Your task to perform on an android device: toggle pop-ups in chrome Image 0: 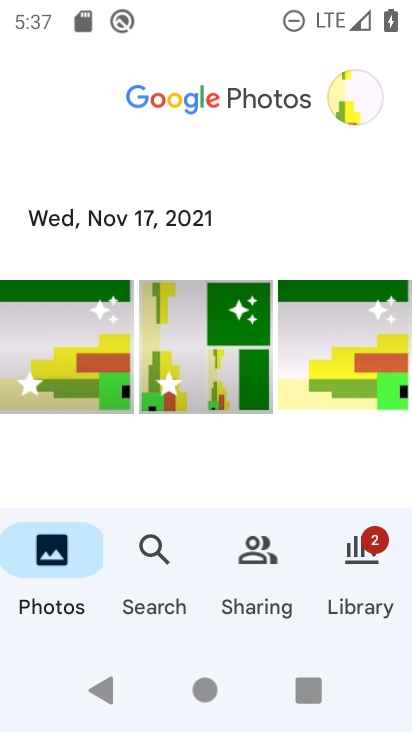
Step 0: press home button
Your task to perform on an android device: toggle pop-ups in chrome Image 1: 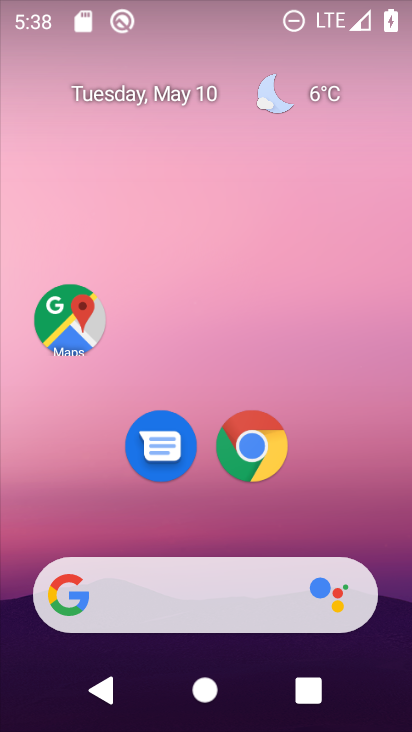
Step 1: click (247, 467)
Your task to perform on an android device: toggle pop-ups in chrome Image 2: 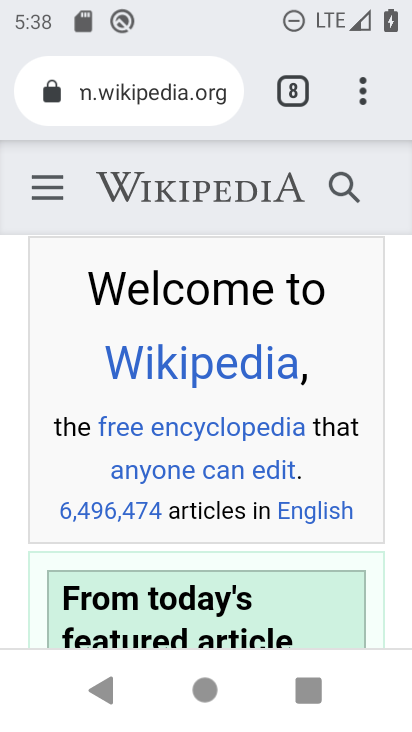
Step 2: click (361, 89)
Your task to perform on an android device: toggle pop-ups in chrome Image 3: 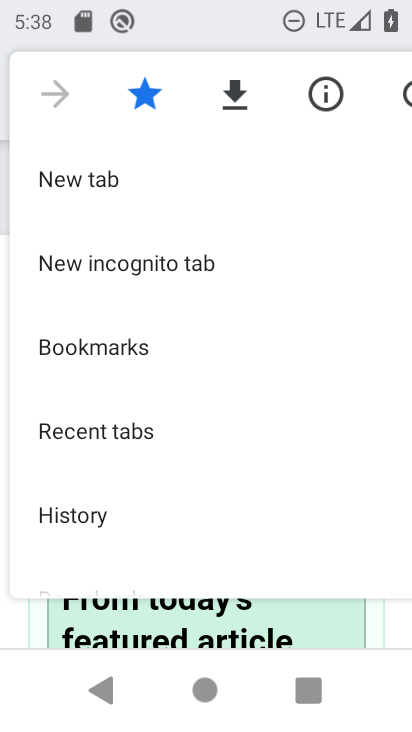
Step 3: drag from (206, 506) to (197, 145)
Your task to perform on an android device: toggle pop-ups in chrome Image 4: 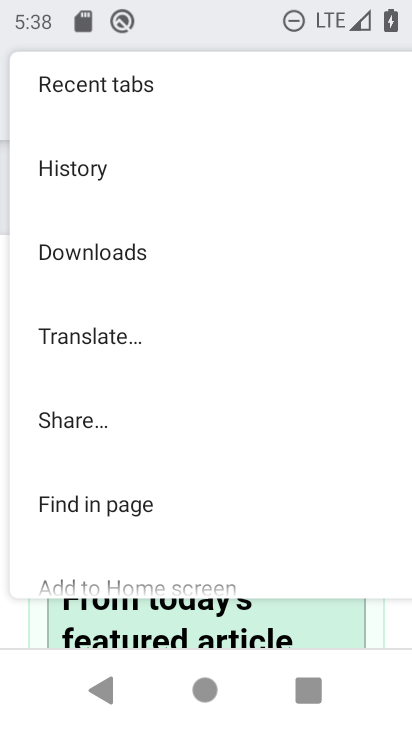
Step 4: drag from (252, 511) to (216, 115)
Your task to perform on an android device: toggle pop-ups in chrome Image 5: 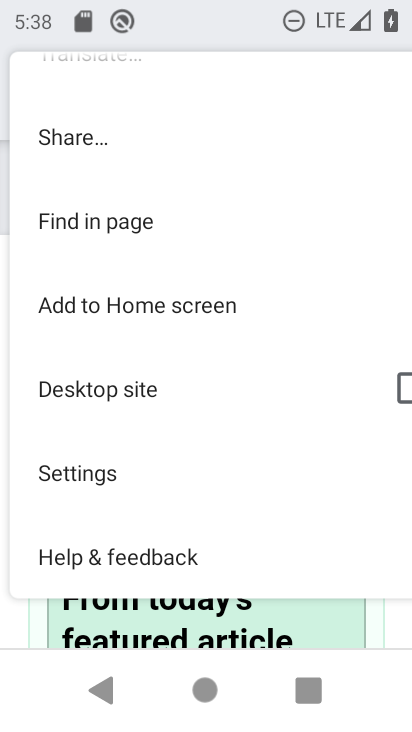
Step 5: click (164, 484)
Your task to perform on an android device: toggle pop-ups in chrome Image 6: 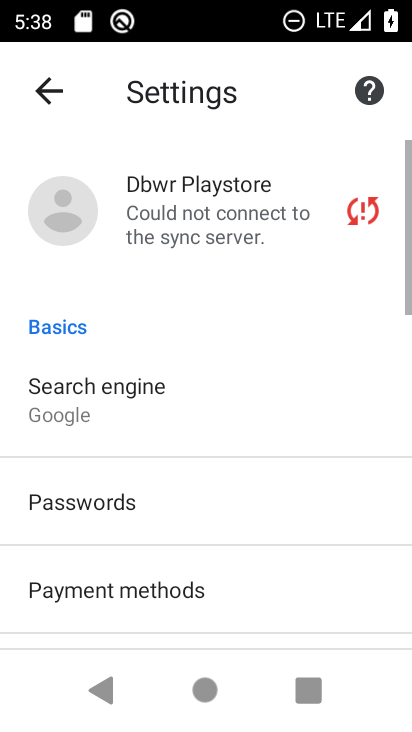
Step 6: drag from (201, 523) to (179, 157)
Your task to perform on an android device: toggle pop-ups in chrome Image 7: 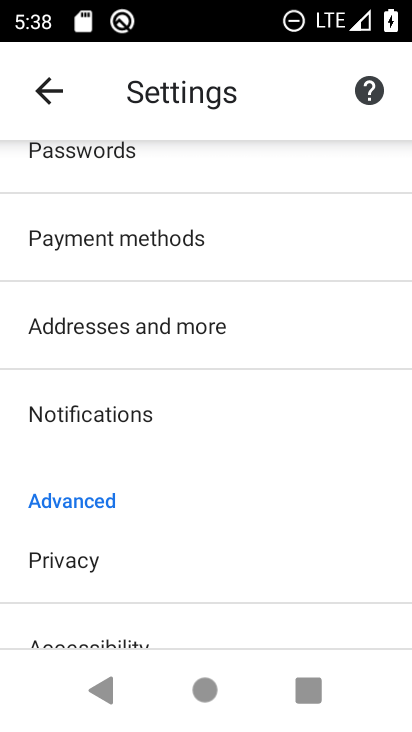
Step 7: drag from (185, 578) to (190, 191)
Your task to perform on an android device: toggle pop-ups in chrome Image 8: 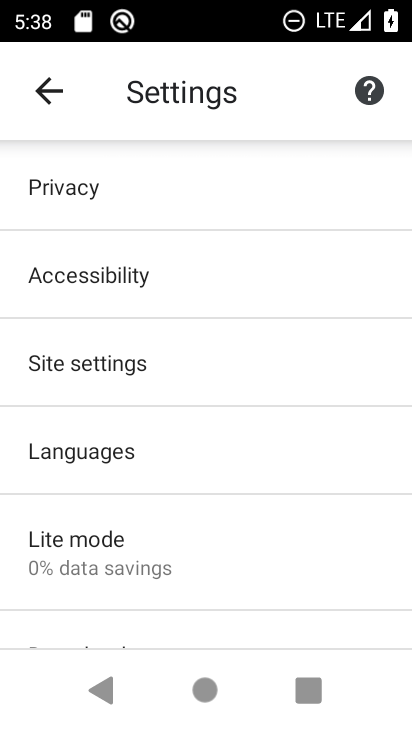
Step 8: click (141, 349)
Your task to perform on an android device: toggle pop-ups in chrome Image 9: 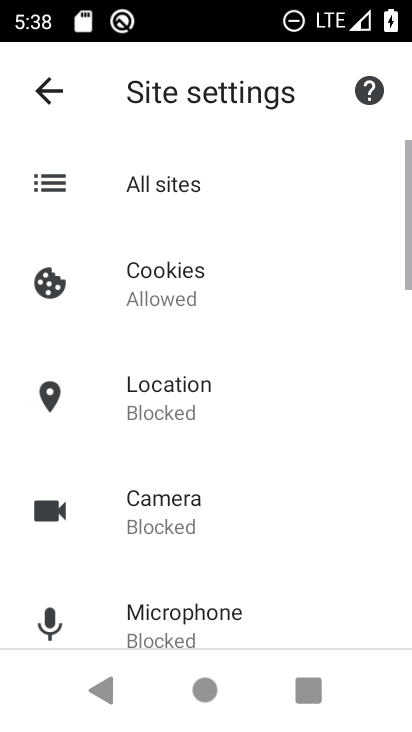
Step 9: drag from (235, 501) to (236, 209)
Your task to perform on an android device: toggle pop-ups in chrome Image 10: 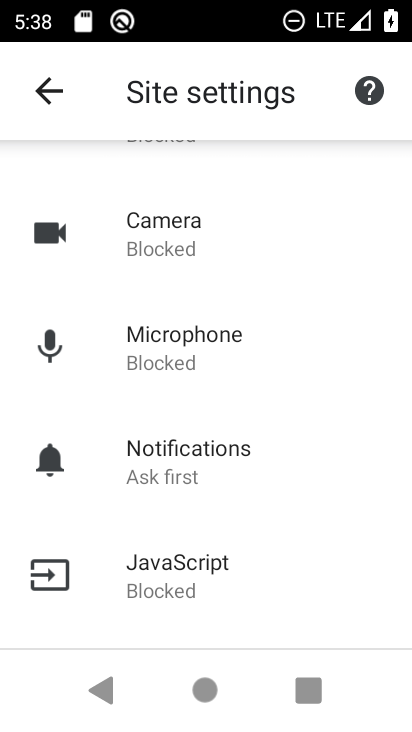
Step 10: drag from (247, 503) to (227, 151)
Your task to perform on an android device: toggle pop-ups in chrome Image 11: 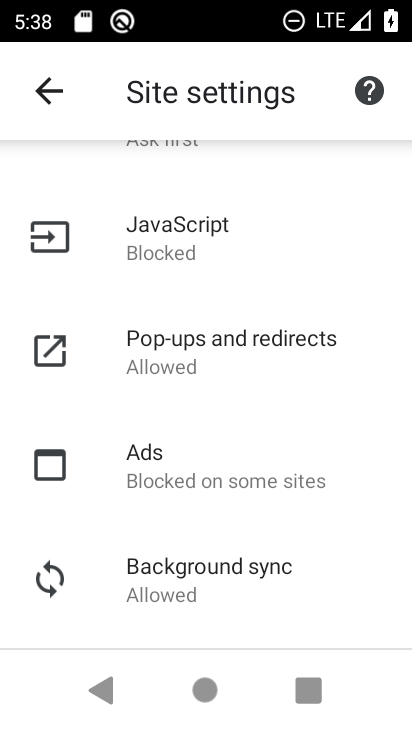
Step 11: drag from (228, 537) to (225, 208)
Your task to perform on an android device: toggle pop-ups in chrome Image 12: 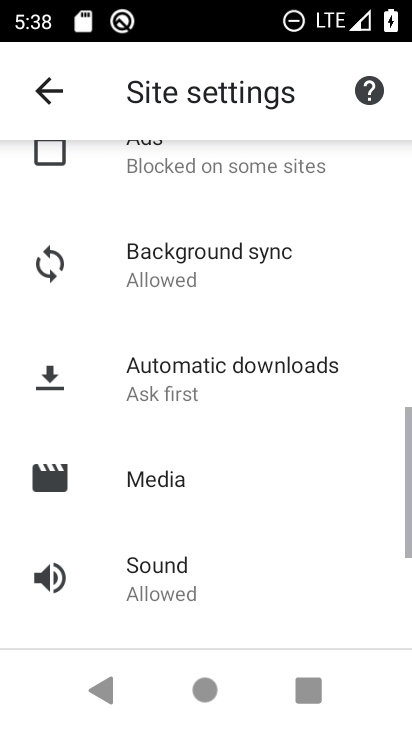
Step 12: drag from (223, 230) to (229, 473)
Your task to perform on an android device: toggle pop-ups in chrome Image 13: 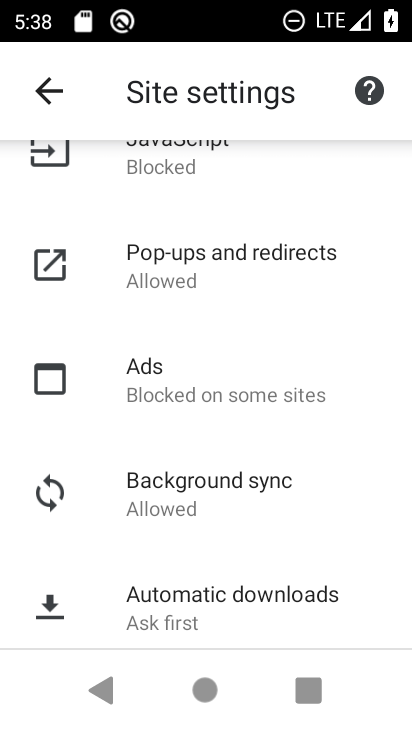
Step 13: click (230, 266)
Your task to perform on an android device: toggle pop-ups in chrome Image 14: 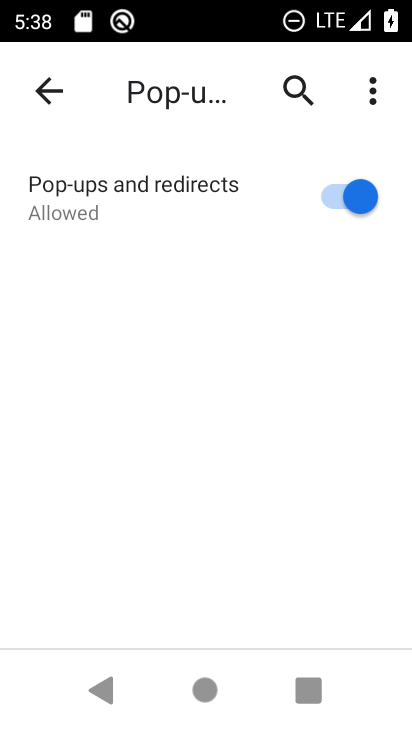
Step 14: click (364, 188)
Your task to perform on an android device: toggle pop-ups in chrome Image 15: 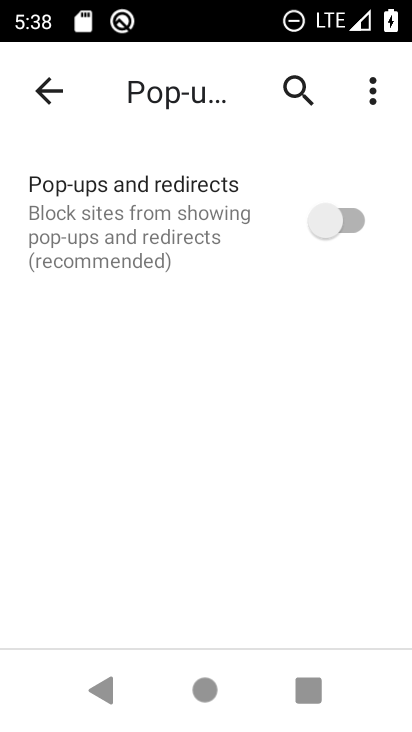
Step 15: task complete